Your task to perform on an android device: Open Yahoo.com Image 0: 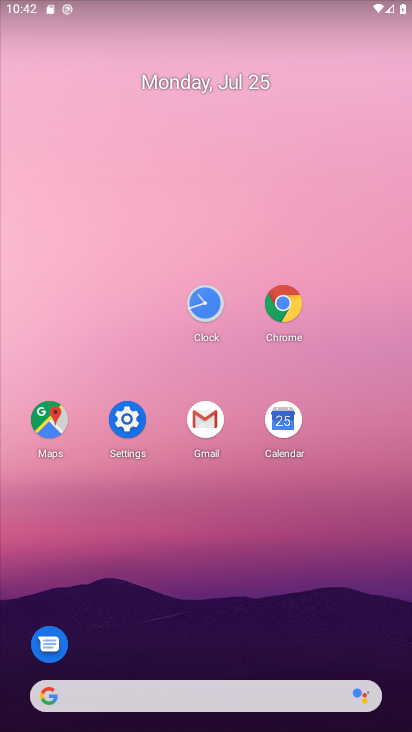
Step 0: click (280, 297)
Your task to perform on an android device: Open Yahoo.com Image 1: 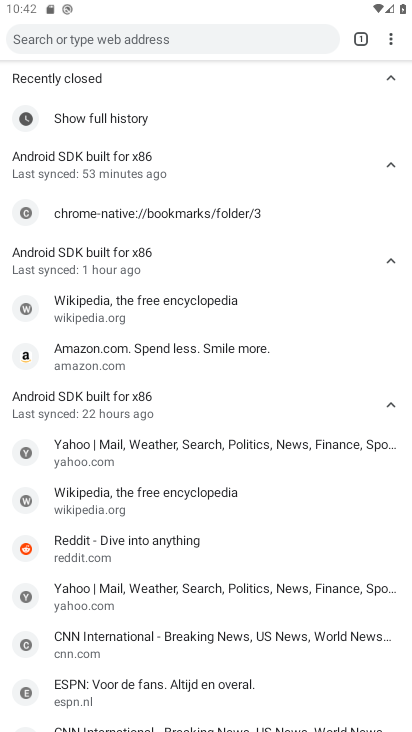
Step 1: click (172, 41)
Your task to perform on an android device: Open Yahoo.com Image 2: 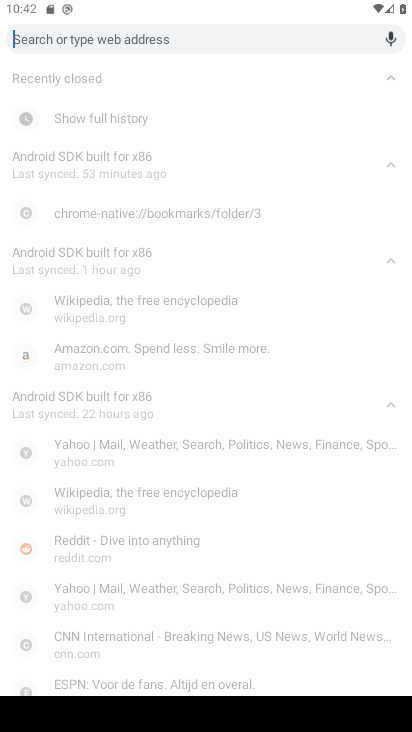
Step 2: type "Yahoo.com"
Your task to perform on an android device: Open Yahoo.com Image 3: 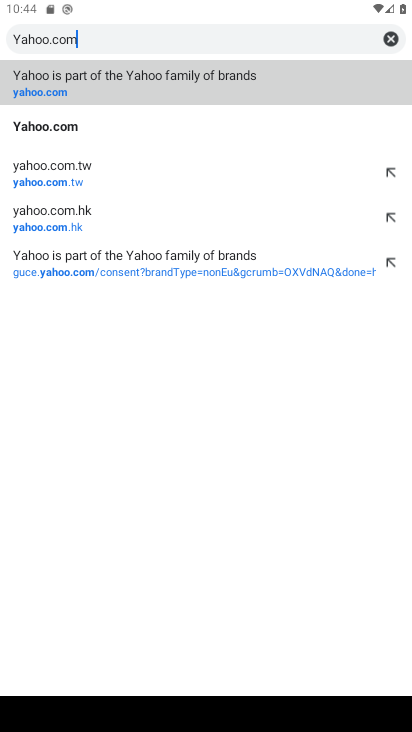
Step 3: click (57, 132)
Your task to perform on an android device: Open Yahoo.com Image 4: 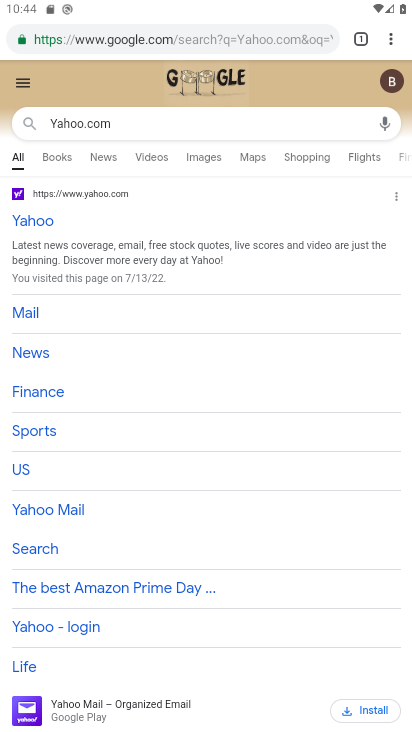
Step 4: task complete